Your task to perform on an android device: delete a single message in the gmail app Image 0: 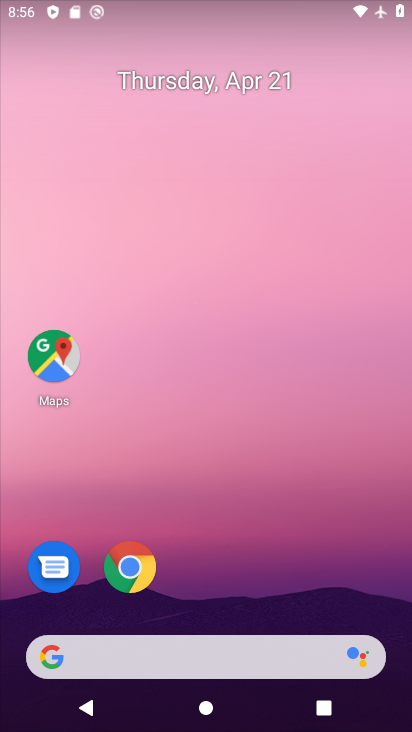
Step 0: drag from (382, 614) to (339, 147)
Your task to perform on an android device: delete a single message in the gmail app Image 1: 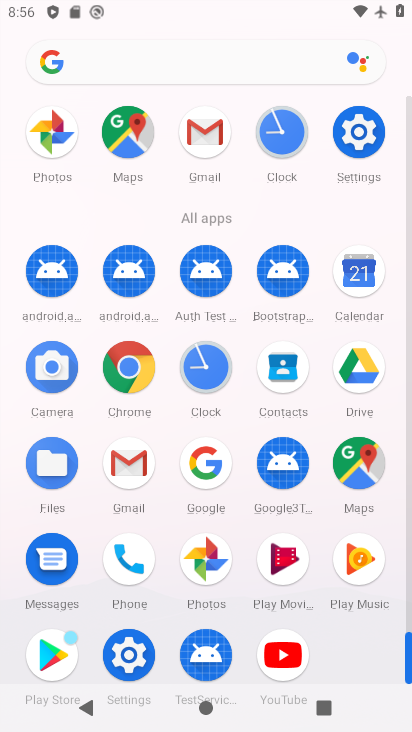
Step 1: click (126, 462)
Your task to perform on an android device: delete a single message in the gmail app Image 2: 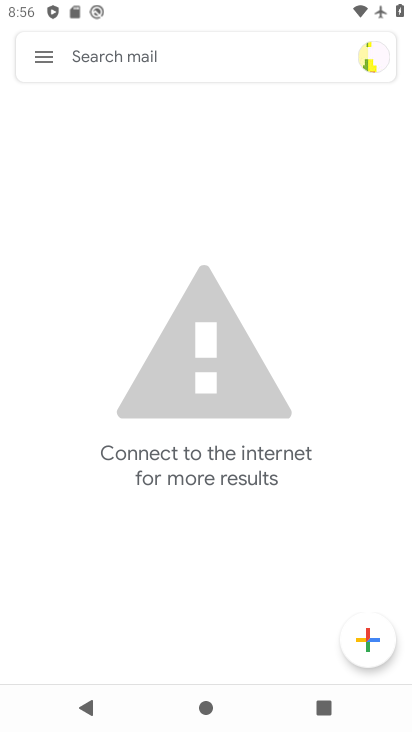
Step 2: click (43, 53)
Your task to perform on an android device: delete a single message in the gmail app Image 3: 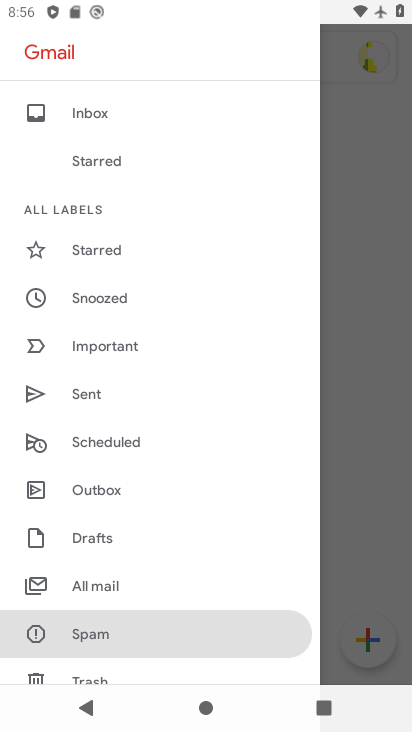
Step 3: drag from (204, 602) to (224, 421)
Your task to perform on an android device: delete a single message in the gmail app Image 4: 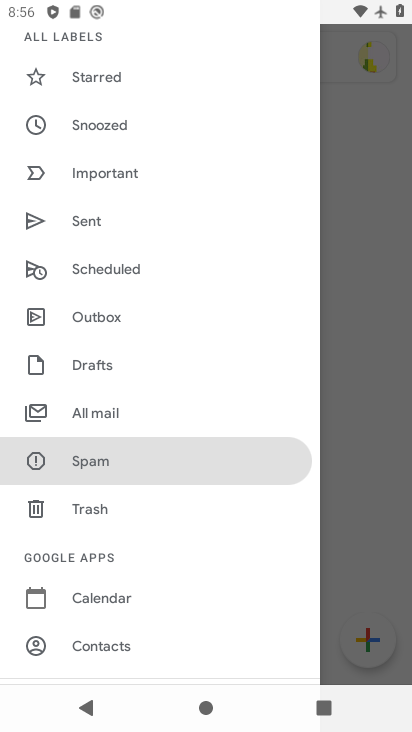
Step 4: click (93, 404)
Your task to perform on an android device: delete a single message in the gmail app Image 5: 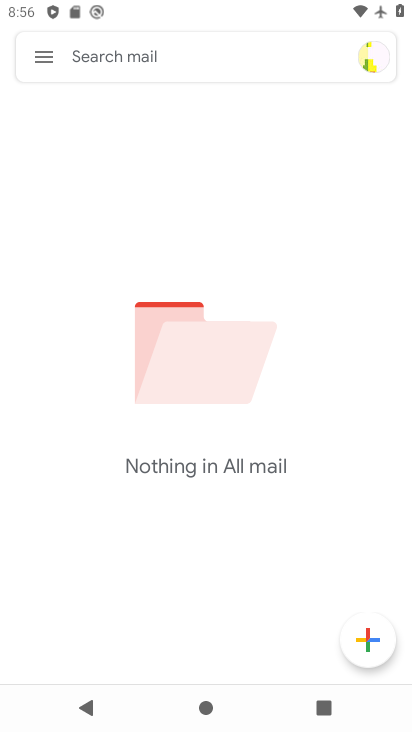
Step 5: task complete